Your task to perform on an android device: Show me popular videos on Youtube Image 0: 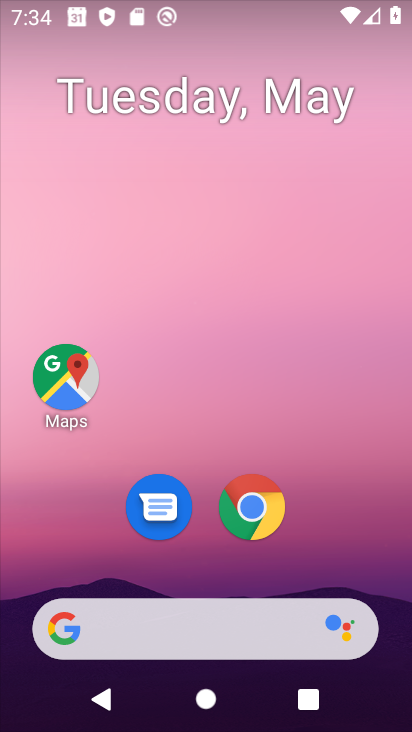
Step 0: drag from (317, 571) to (293, 73)
Your task to perform on an android device: Show me popular videos on Youtube Image 1: 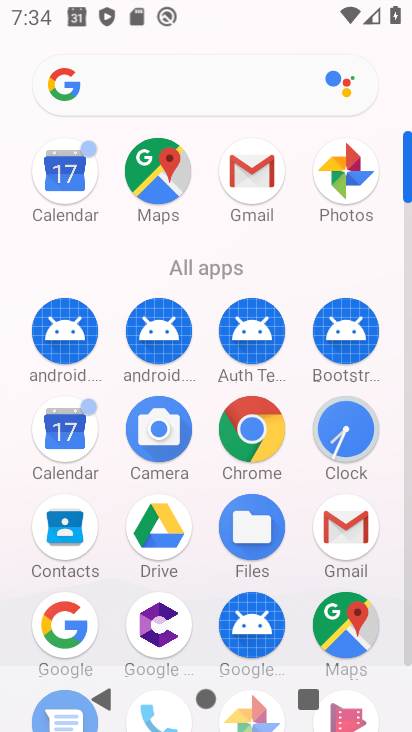
Step 1: drag from (290, 622) to (289, 310)
Your task to perform on an android device: Show me popular videos on Youtube Image 2: 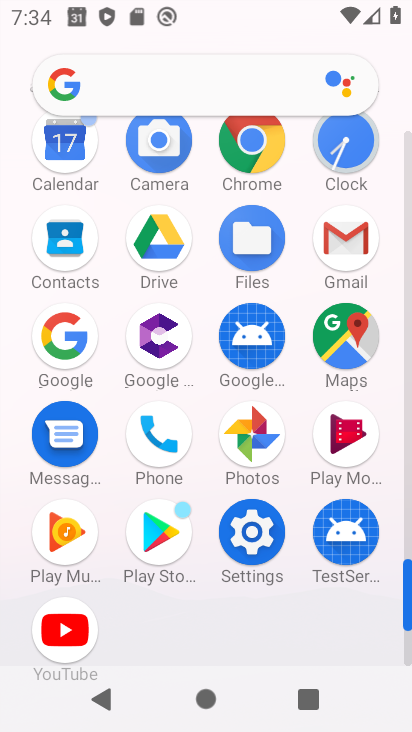
Step 2: click (57, 630)
Your task to perform on an android device: Show me popular videos on Youtube Image 3: 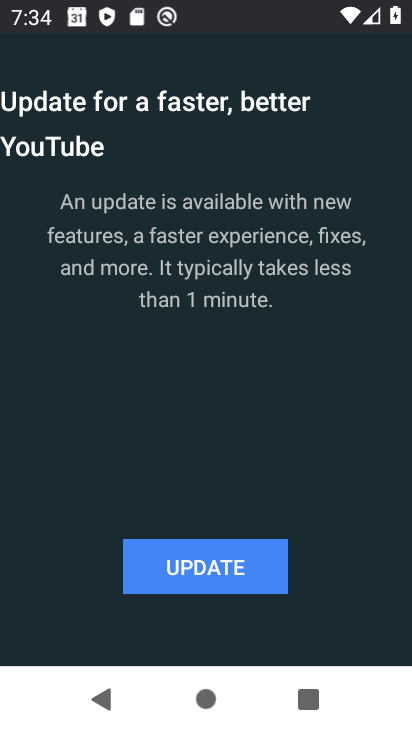
Step 3: click (187, 575)
Your task to perform on an android device: Show me popular videos on Youtube Image 4: 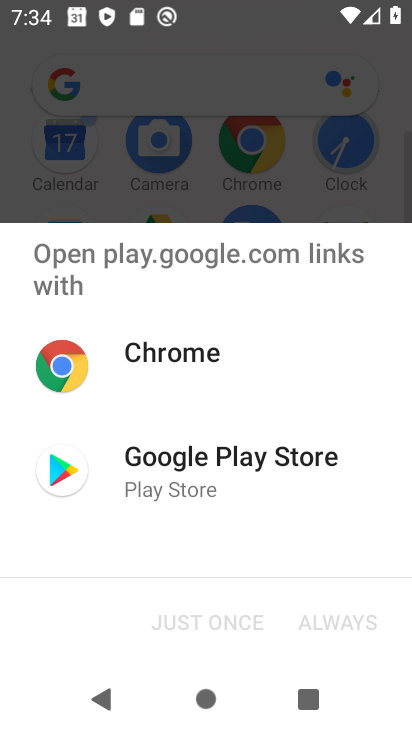
Step 4: click (126, 467)
Your task to perform on an android device: Show me popular videos on Youtube Image 5: 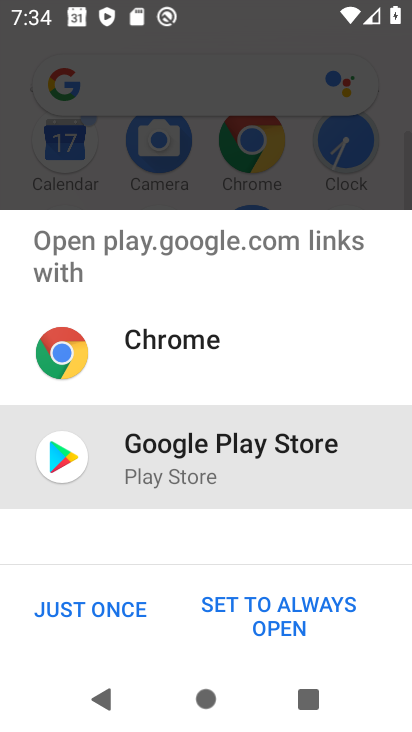
Step 5: click (117, 615)
Your task to perform on an android device: Show me popular videos on Youtube Image 6: 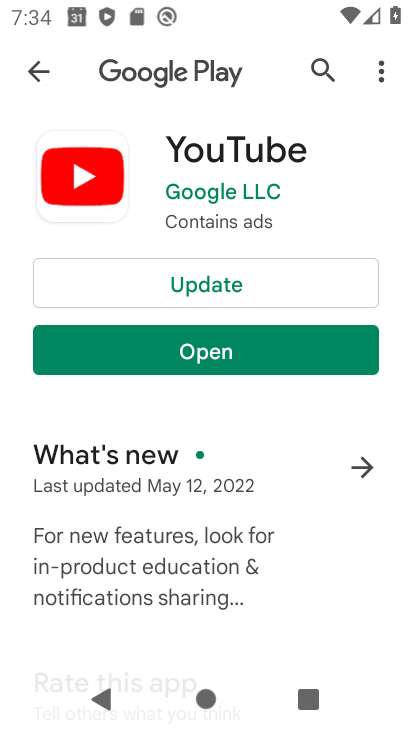
Step 6: click (194, 294)
Your task to perform on an android device: Show me popular videos on Youtube Image 7: 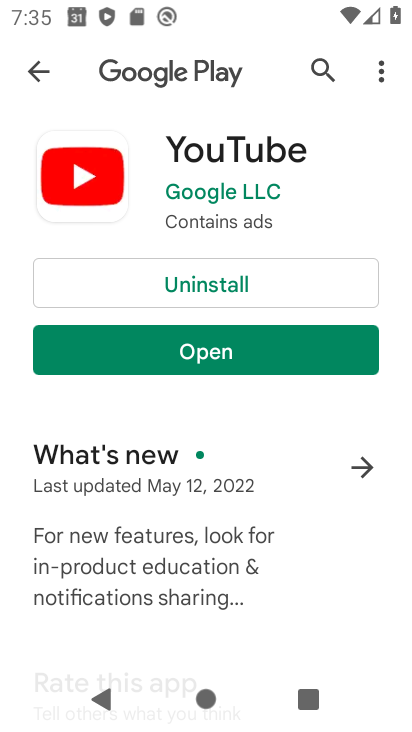
Step 7: click (263, 363)
Your task to perform on an android device: Show me popular videos on Youtube Image 8: 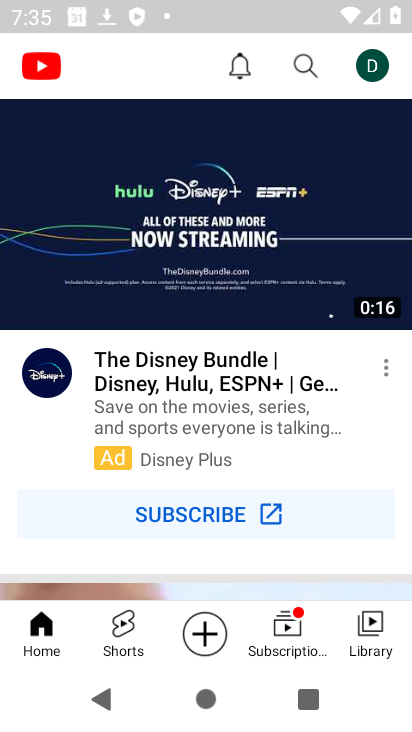
Step 8: drag from (97, 196) to (113, 423)
Your task to perform on an android device: Show me popular videos on Youtube Image 9: 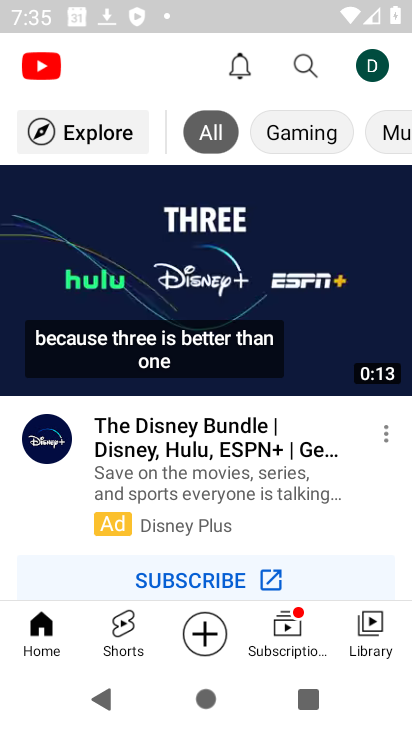
Step 9: click (104, 144)
Your task to perform on an android device: Show me popular videos on Youtube Image 10: 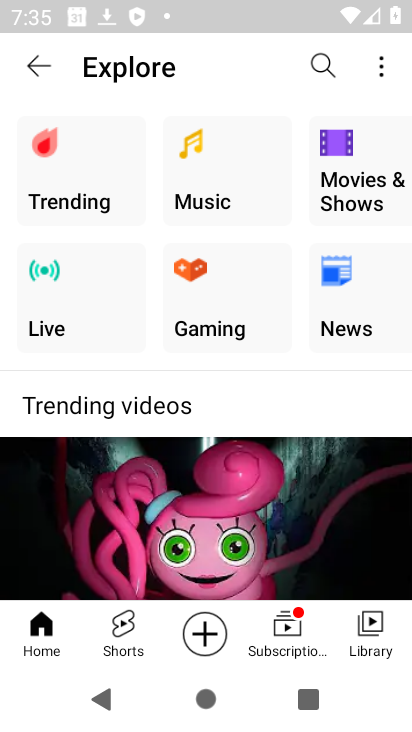
Step 10: click (68, 198)
Your task to perform on an android device: Show me popular videos on Youtube Image 11: 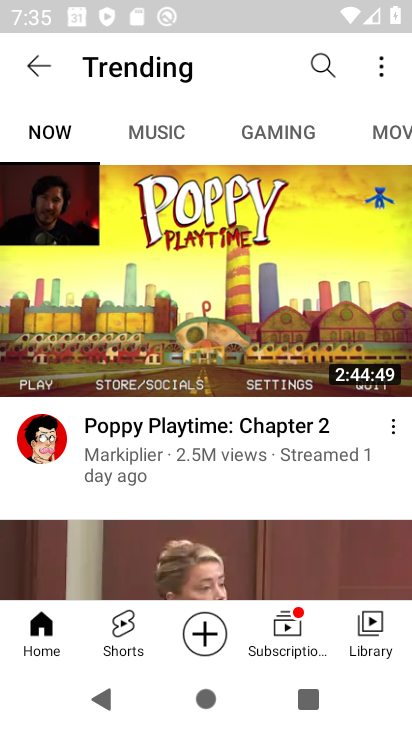
Step 11: task complete